Your task to perform on an android device: open chrome privacy settings Image 0: 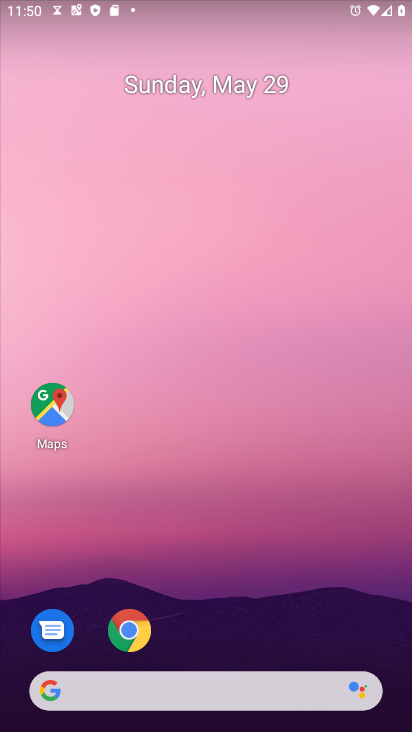
Step 0: click (126, 625)
Your task to perform on an android device: open chrome privacy settings Image 1: 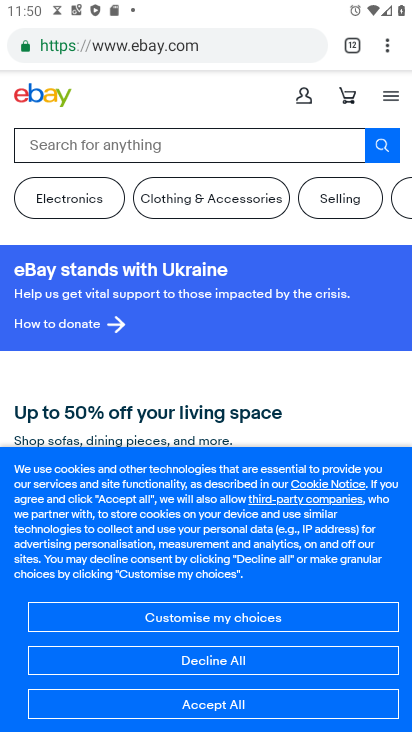
Step 1: click (376, 41)
Your task to perform on an android device: open chrome privacy settings Image 2: 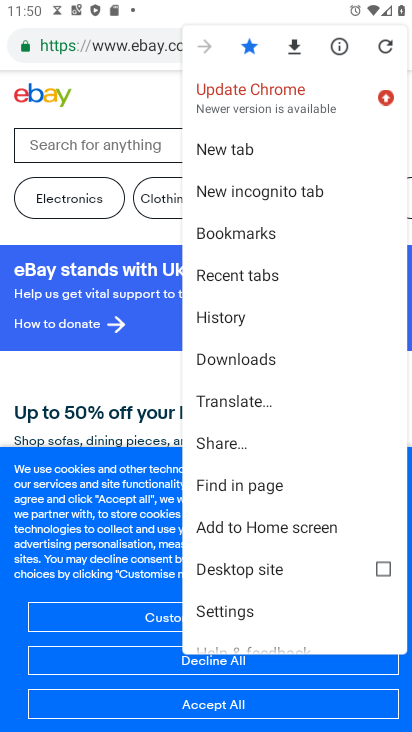
Step 2: click (207, 609)
Your task to perform on an android device: open chrome privacy settings Image 3: 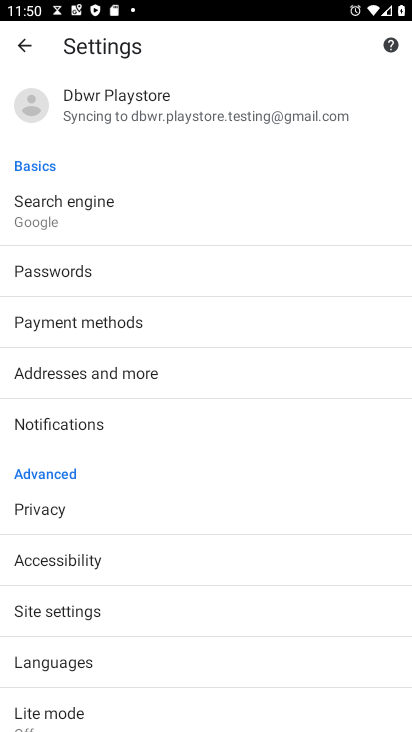
Step 3: click (82, 492)
Your task to perform on an android device: open chrome privacy settings Image 4: 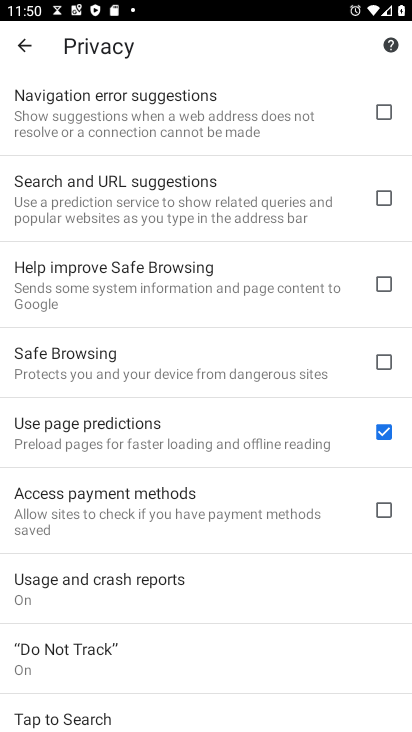
Step 4: task complete